Your task to perform on an android device: Open Google Maps Image 0: 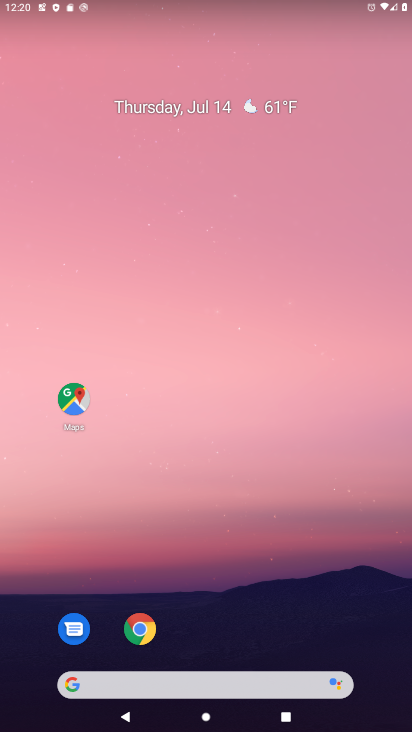
Step 0: click (70, 403)
Your task to perform on an android device: Open Google Maps Image 1: 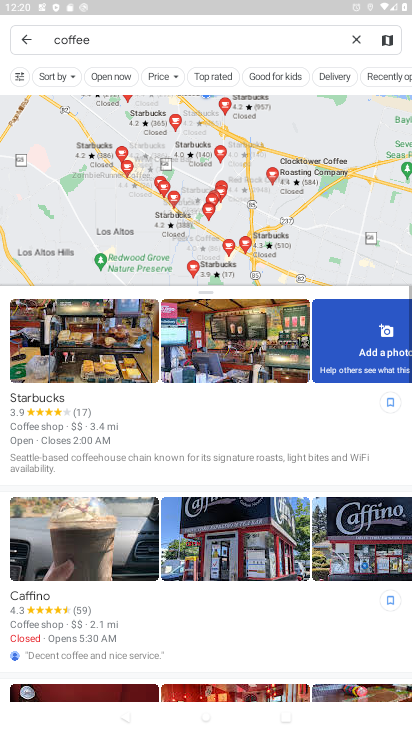
Step 1: click (21, 39)
Your task to perform on an android device: Open Google Maps Image 2: 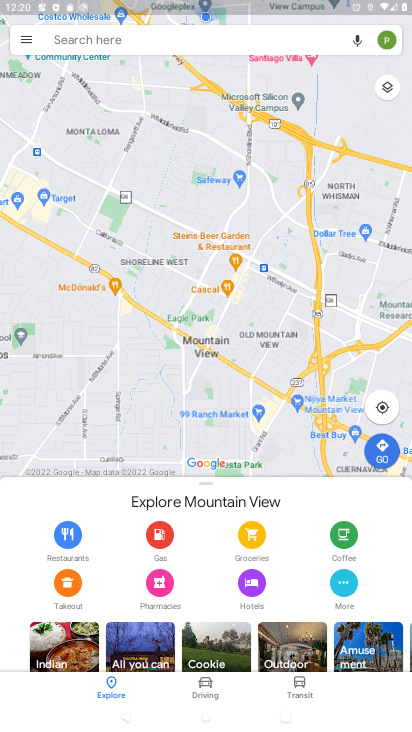
Step 2: task complete